Your task to perform on an android device: turn off airplane mode Image 0: 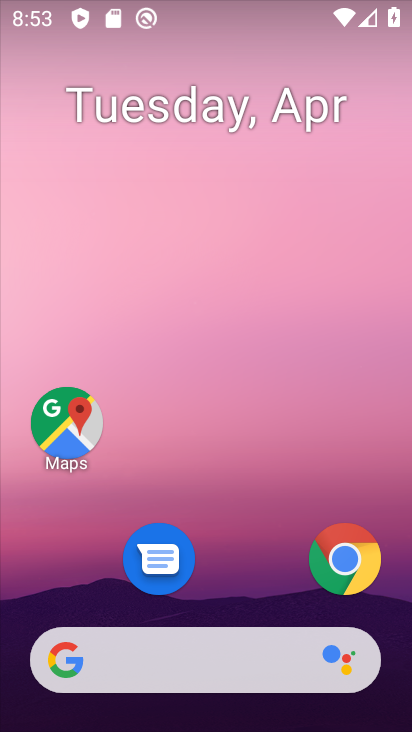
Step 0: click (188, 254)
Your task to perform on an android device: turn off airplane mode Image 1: 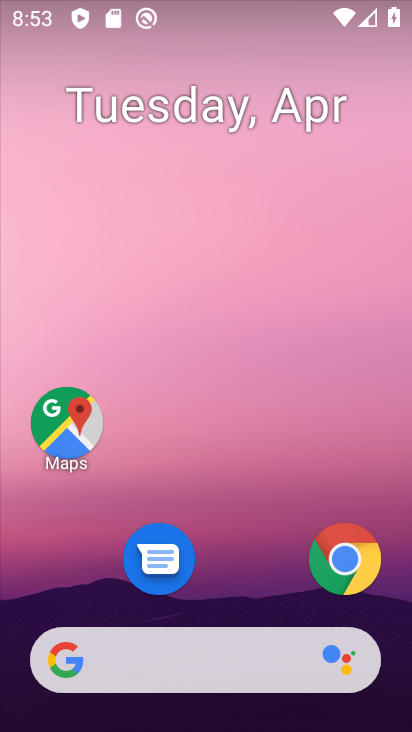
Step 1: drag from (267, 705) to (227, 296)
Your task to perform on an android device: turn off airplane mode Image 2: 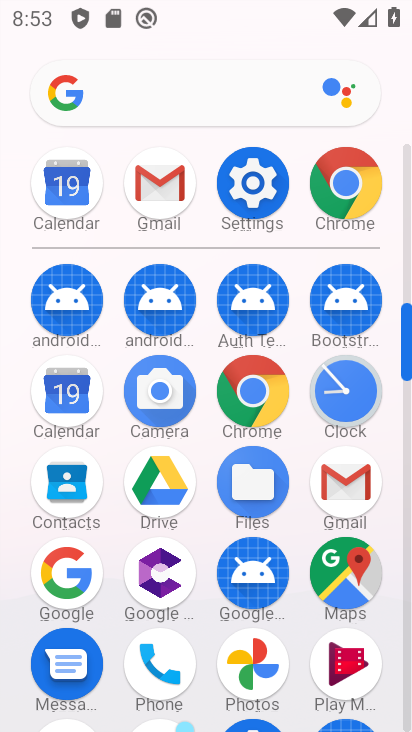
Step 2: click (258, 192)
Your task to perform on an android device: turn off airplane mode Image 3: 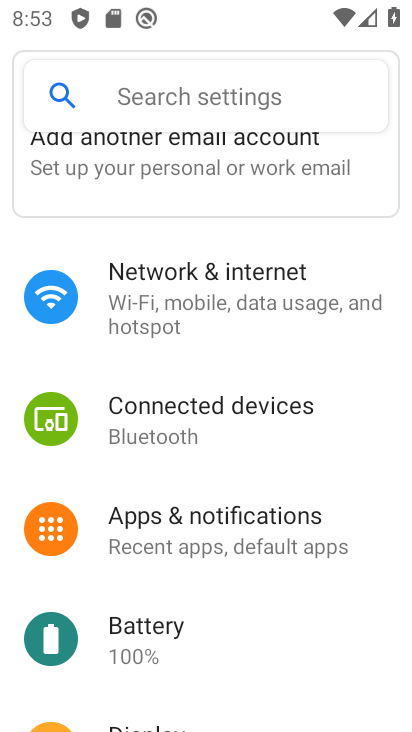
Step 3: click (184, 309)
Your task to perform on an android device: turn off airplane mode Image 4: 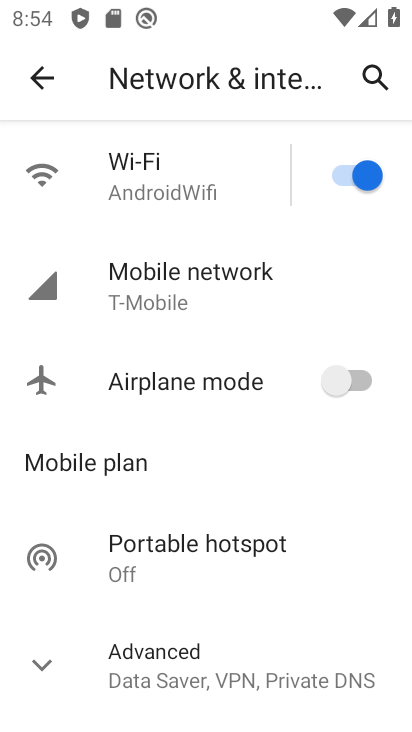
Step 4: click (256, 384)
Your task to perform on an android device: turn off airplane mode Image 5: 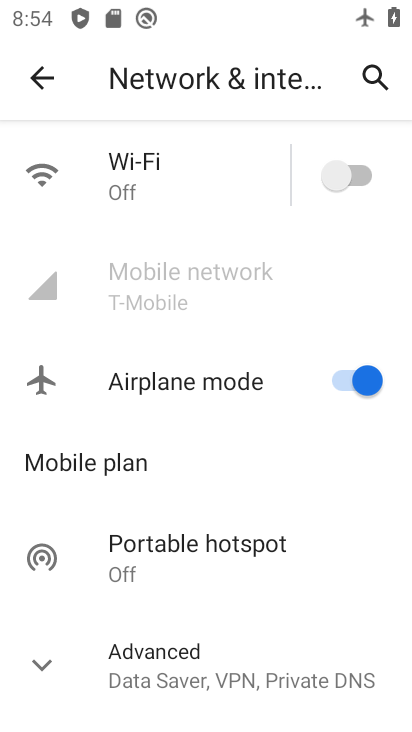
Step 5: click (256, 384)
Your task to perform on an android device: turn off airplane mode Image 6: 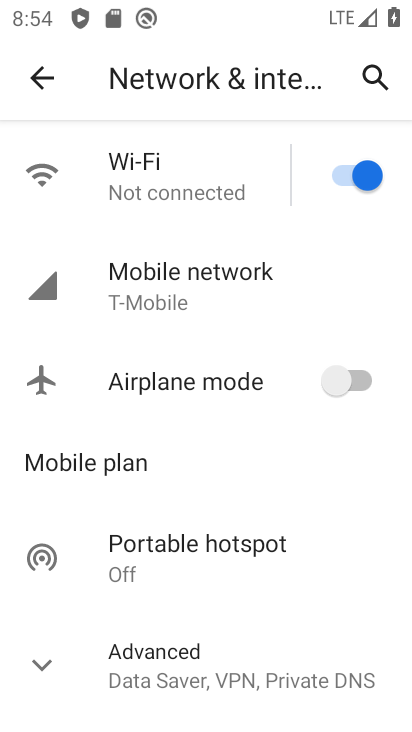
Step 6: task complete